Your task to perform on an android device: Turn on the flashlight Image 0: 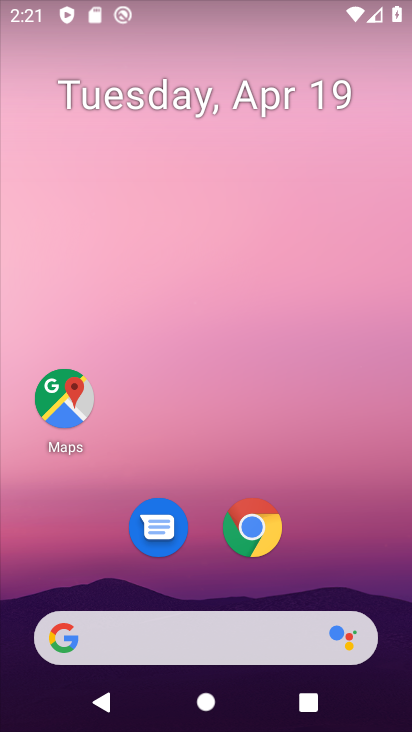
Step 0: drag from (281, 2) to (297, 399)
Your task to perform on an android device: Turn on the flashlight Image 1: 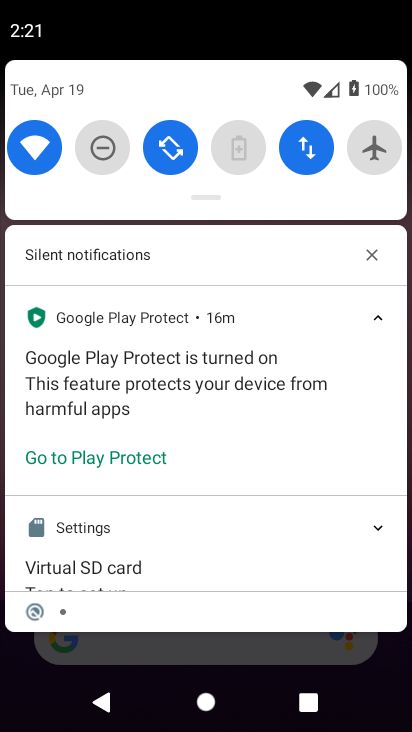
Step 1: drag from (321, 180) to (309, 537)
Your task to perform on an android device: Turn on the flashlight Image 2: 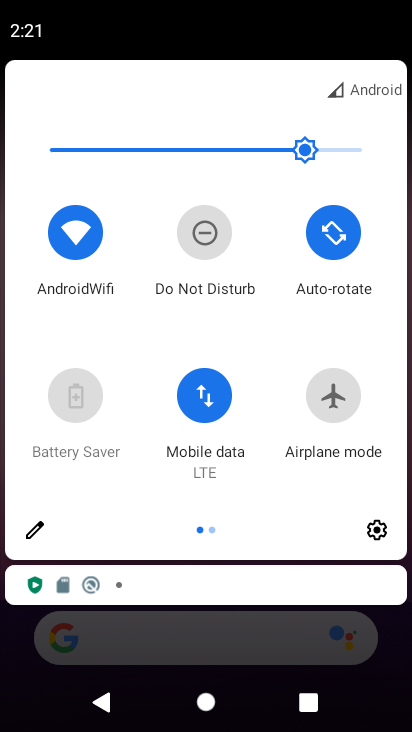
Step 2: drag from (257, 390) to (35, 402)
Your task to perform on an android device: Turn on the flashlight Image 3: 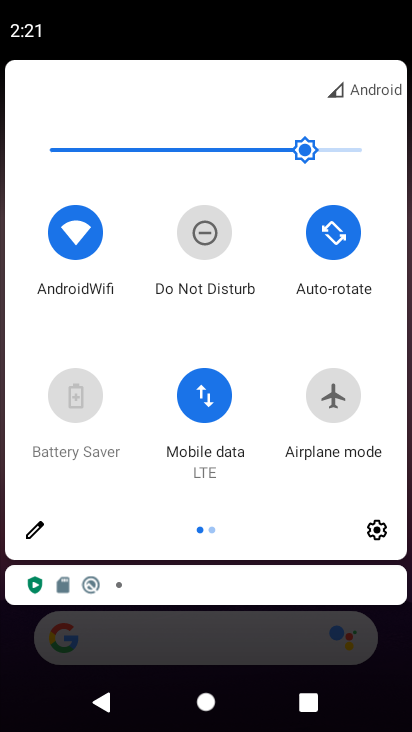
Step 3: drag from (246, 485) to (43, 471)
Your task to perform on an android device: Turn on the flashlight Image 4: 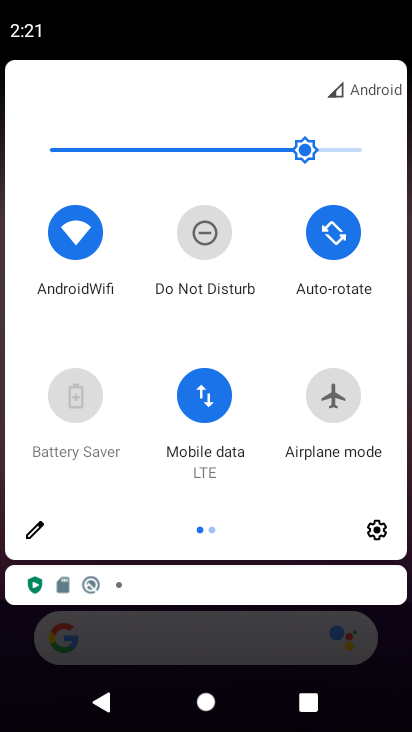
Step 4: drag from (343, 431) to (10, 421)
Your task to perform on an android device: Turn on the flashlight Image 5: 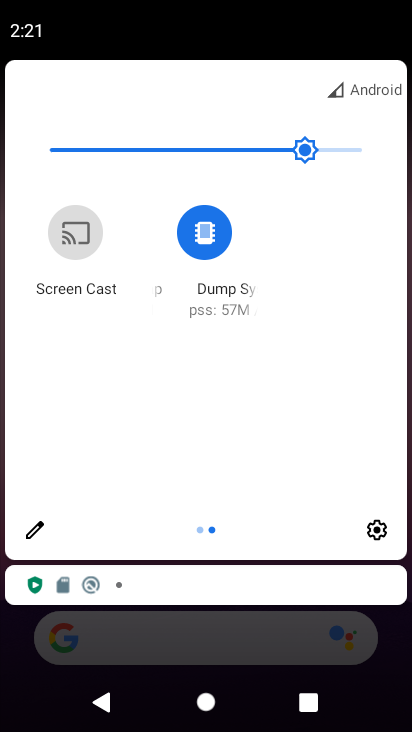
Step 5: click (42, 530)
Your task to perform on an android device: Turn on the flashlight Image 6: 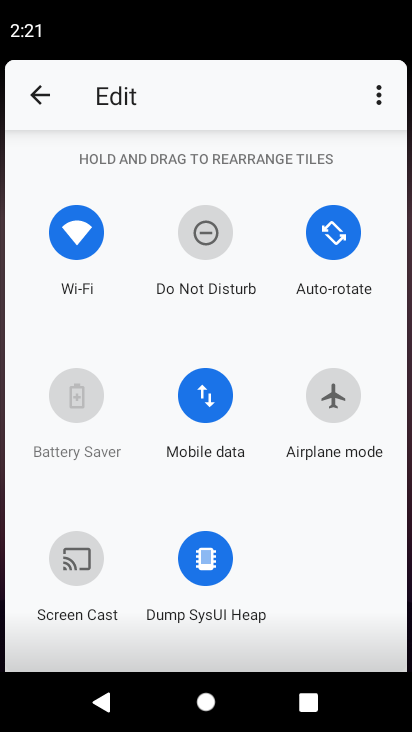
Step 6: task complete